Your task to perform on an android device: Open Chrome and go to settings Image 0: 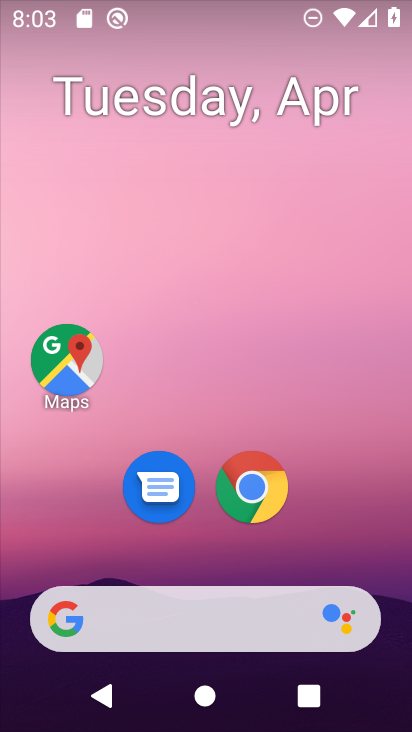
Step 0: drag from (229, 586) to (232, 219)
Your task to perform on an android device: Open Chrome and go to settings Image 1: 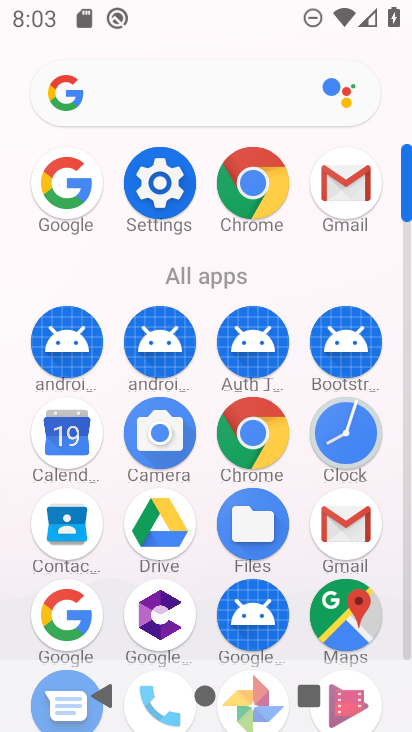
Step 1: click (242, 189)
Your task to perform on an android device: Open Chrome and go to settings Image 2: 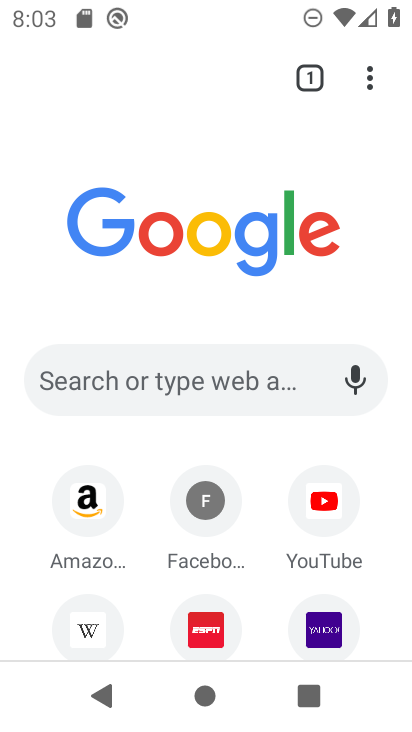
Step 2: click (373, 74)
Your task to perform on an android device: Open Chrome and go to settings Image 3: 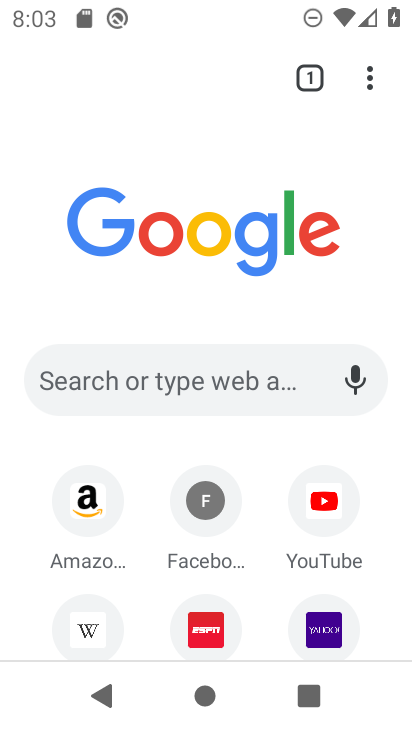
Step 3: click (360, 73)
Your task to perform on an android device: Open Chrome and go to settings Image 4: 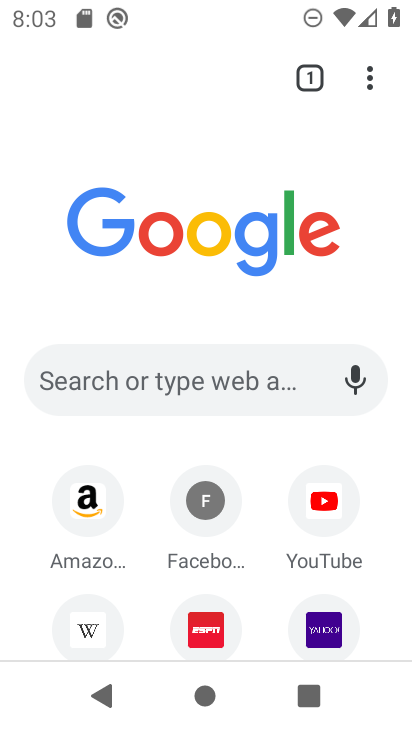
Step 4: click (360, 73)
Your task to perform on an android device: Open Chrome and go to settings Image 5: 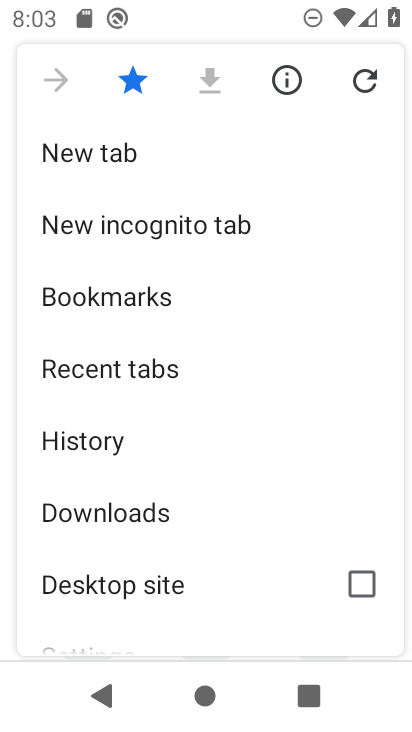
Step 5: drag from (155, 610) to (172, 317)
Your task to perform on an android device: Open Chrome and go to settings Image 6: 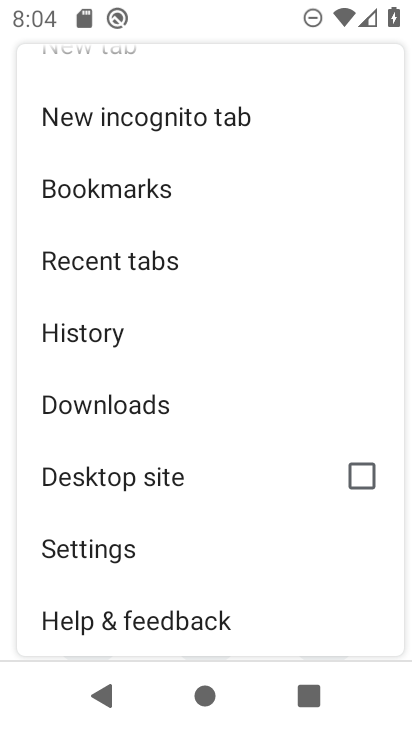
Step 6: click (69, 546)
Your task to perform on an android device: Open Chrome and go to settings Image 7: 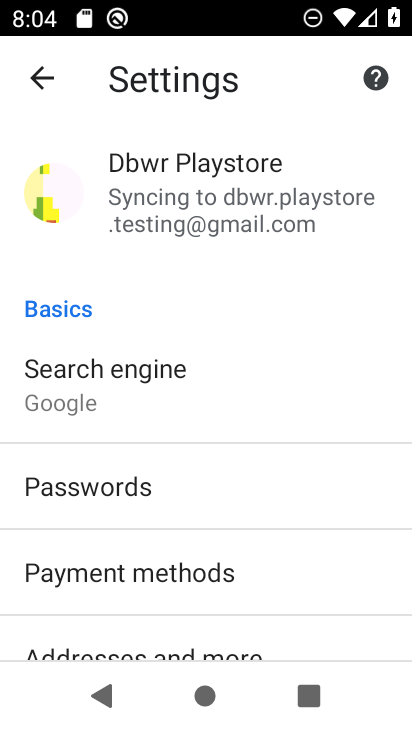
Step 7: task complete